Your task to perform on an android device: see tabs open on other devices in the chrome app Image 0: 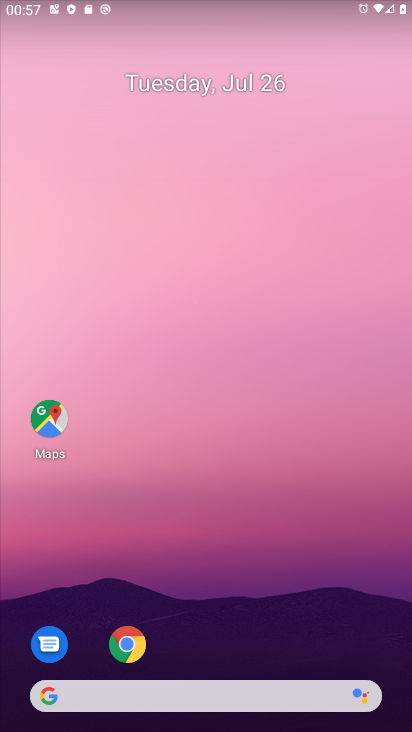
Step 0: drag from (246, 640) to (242, 245)
Your task to perform on an android device: see tabs open on other devices in the chrome app Image 1: 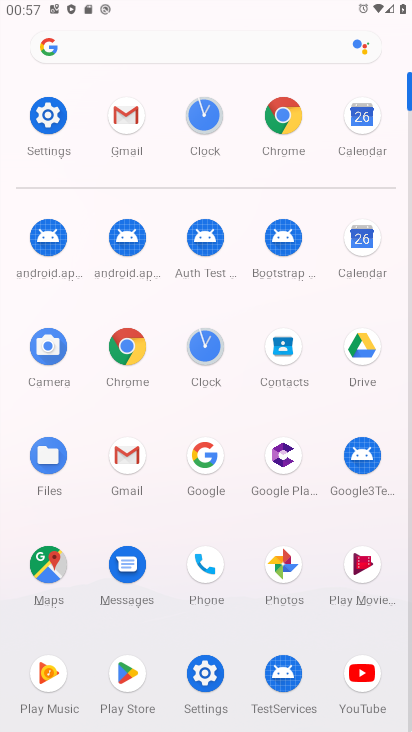
Step 1: click (271, 113)
Your task to perform on an android device: see tabs open on other devices in the chrome app Image 2: 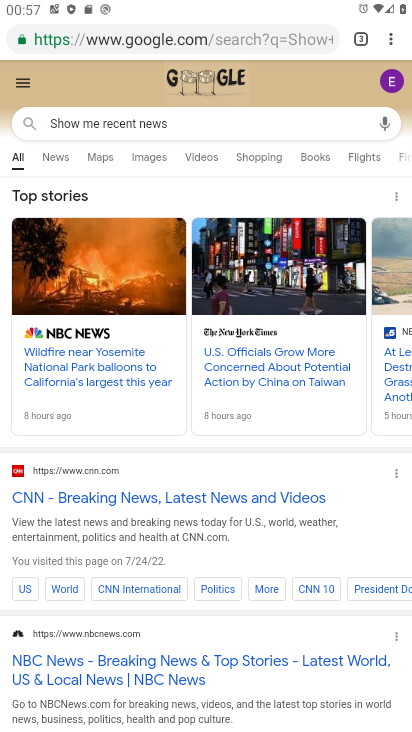
Step 2: click (392, 35)
Your task to perform on an android device: see tabs open on other devices in the chrome app Image 3: 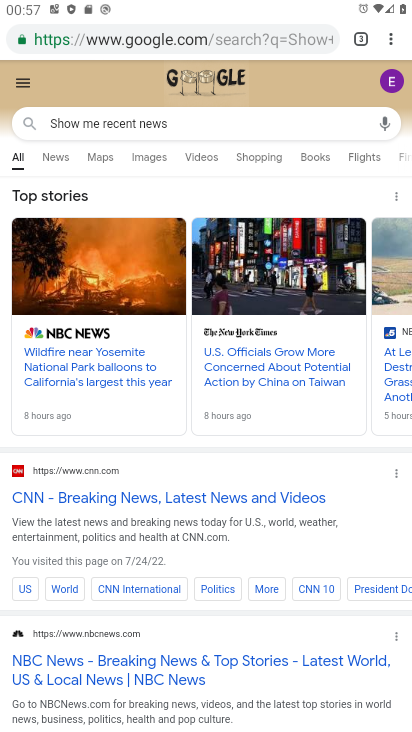
Step 3: click (396, 36)
Your task to perform on an android device: see tabs open on other devices in the chrome app Image 4: 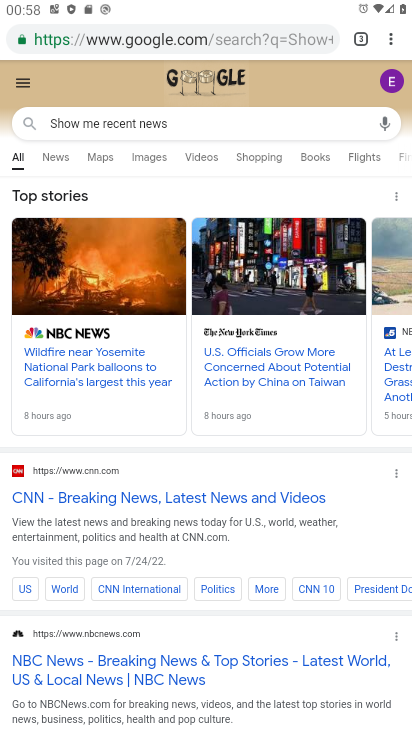
Step 4: click (400, 43)
Your task to perform on an android device: see tabs open on other devices in the chrome app Image 5: 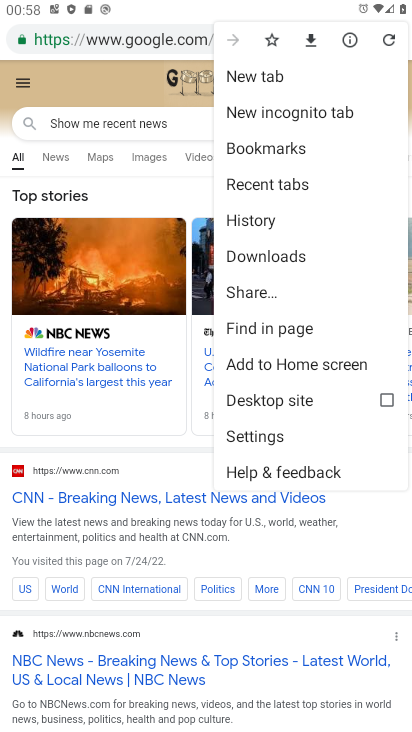
Step 5: click (279, 213)
Your task to perform on an android device: see tabs open on other devices in the chrome app Image 6: 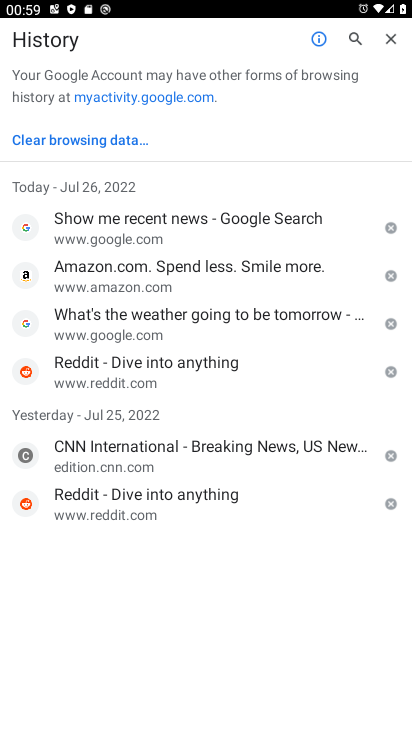
Step 6: task complete